Your task to perform on an android device: Open Yahoo.com Image 0: 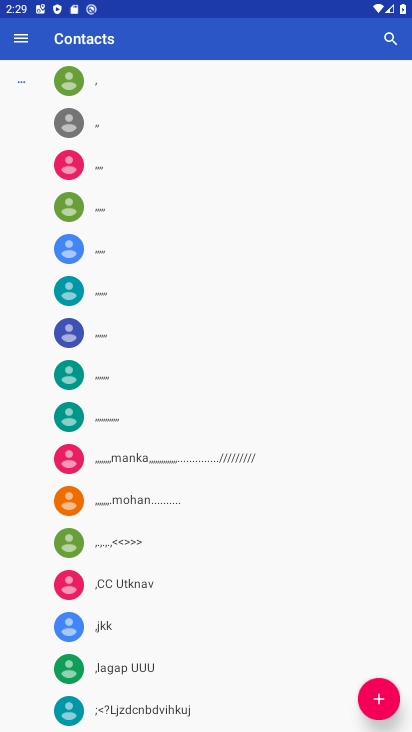
Step 0: press home button
Your task to perform on an android device: Open Yahoo.com Image 1: 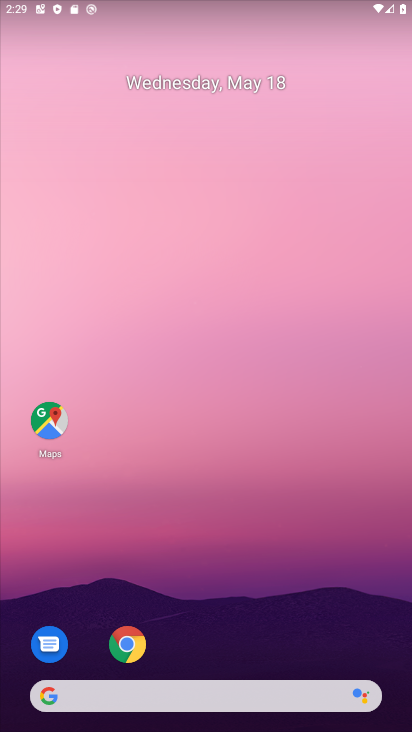
Step 1: click (181, 707)
Your task to perform on an android device: Open Yahoo.com Image 2: 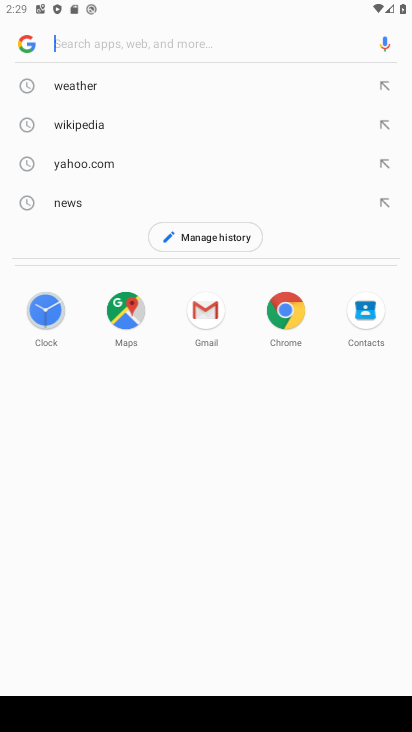
Step 2: click (180, 166)
Your task to perform on an android device: Open Yahoo.com Image 3: 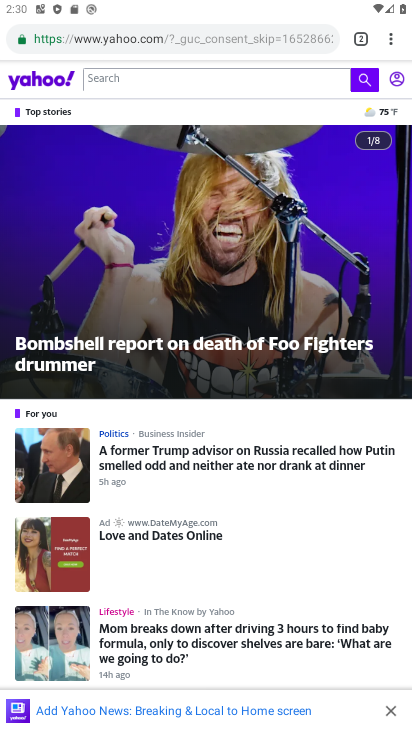
Step 3: task complete